Your task to perform on an android device: Search for pizza restaurants on Maps Image 0: 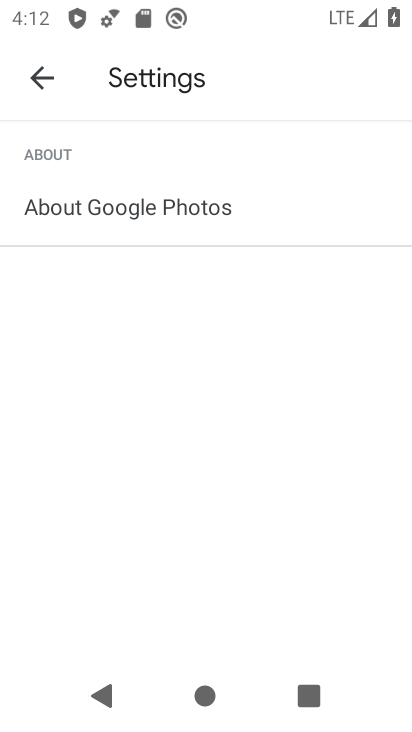
Step 0: press home button
Your task to perform on an android device: Search for pizza restaurants on Maps Image 1: 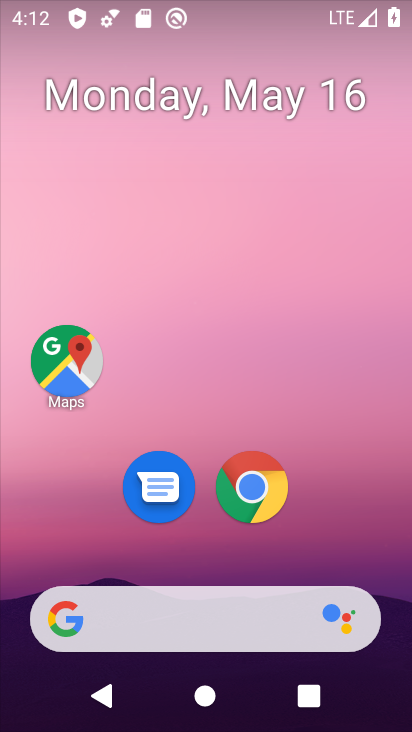
Step 1: click (71, 362)
Your task to perform on an android device: Search for pizza restaurants on Maps Image 2: 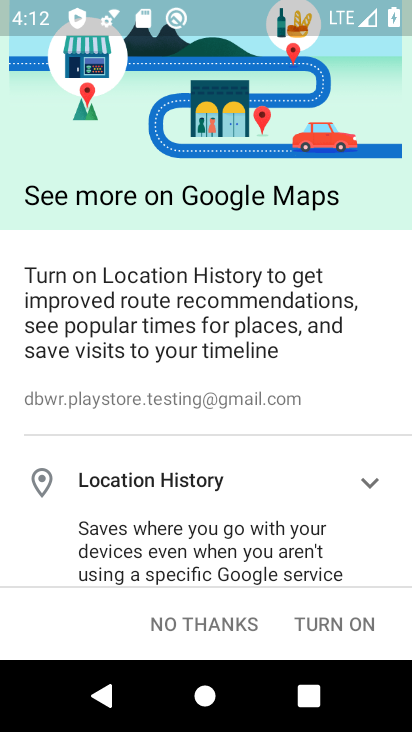
Step 2: click (216, 624)
Your task to perform on an android device: Search for pizza restaurants on Maps Image 3: 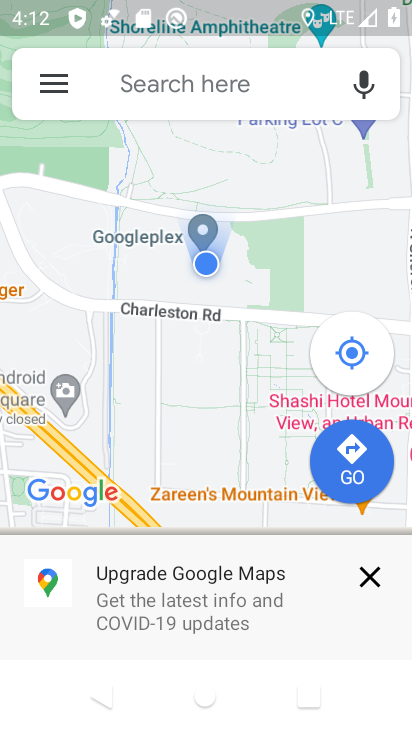
Step 3: click (145, 71)
Your task to perform on an android device: Search for pizza restaurants on Maps Image 4: 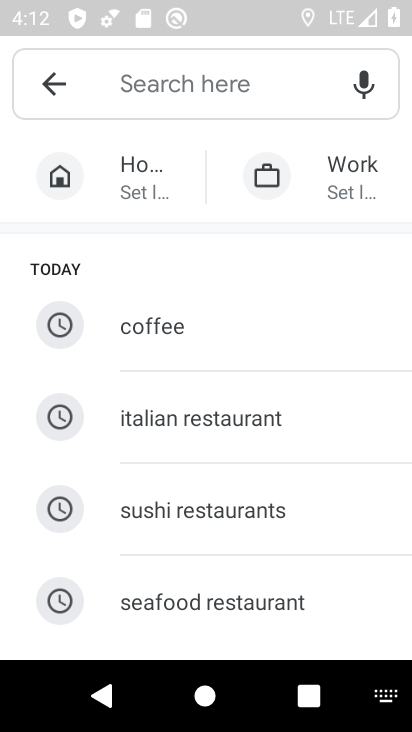
Step 4: type "pizza restaurants"
Your task to perform on an android device: Search for pizza restaurants on Maps Image 5: 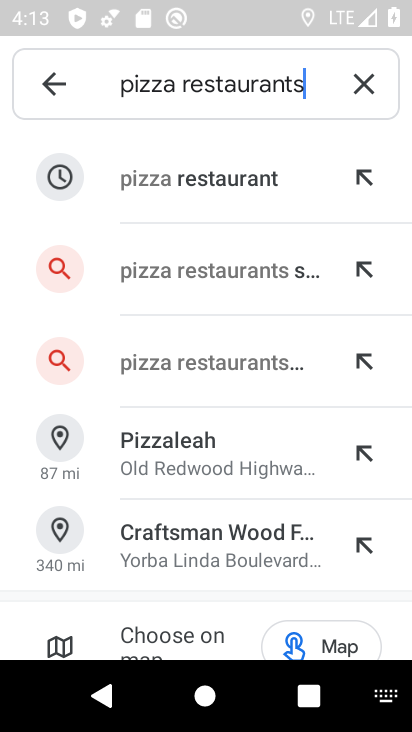
Step 5: click (211, 175)
Your task to perform on an android device: Search for pizza restaurants on Maps Image 6: 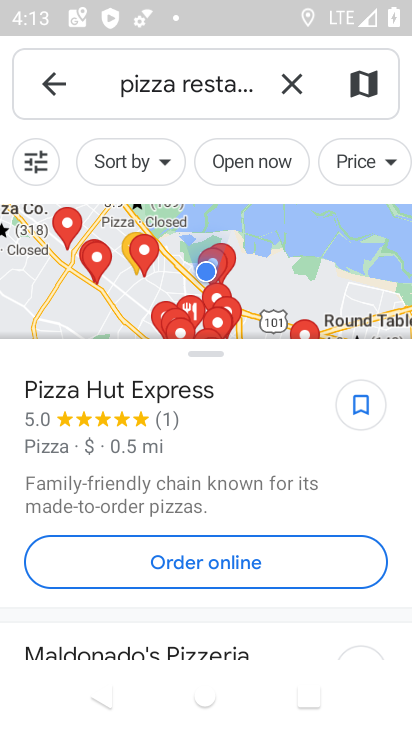
Step 6: task complete